Your task to perform on an android device: turn on wifi Image 0: 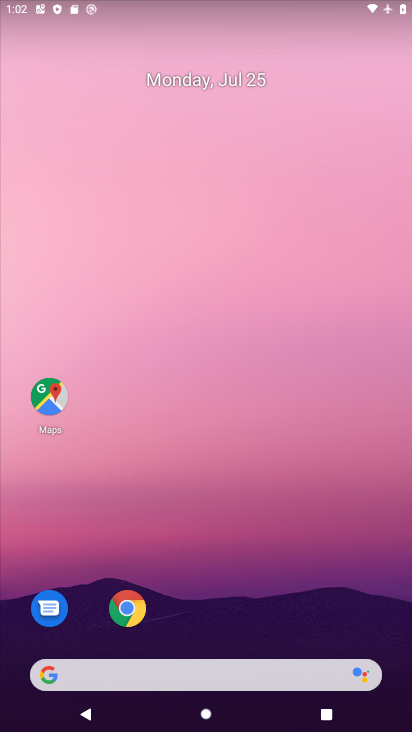
Step 0: drag from (198, 697) to (319, 218)
Your task to perform on an android device: turn on wifi Image 1: 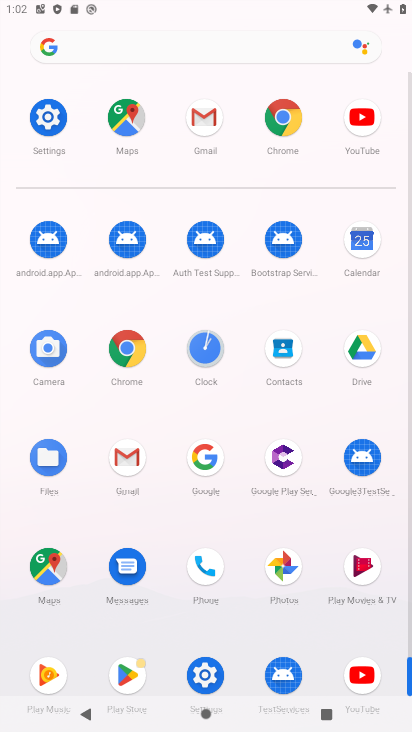
Step 1: click (40, 140)
Your task to perform on an android device: turn on wifi Image 2: 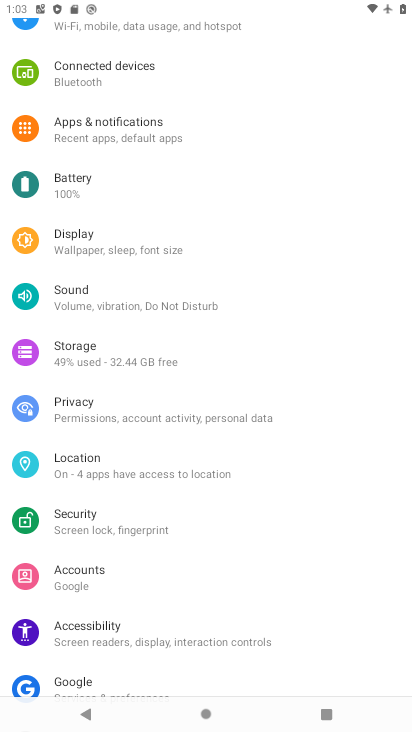
Step 2: drag from (139, 172) to (147, 583)
Your task to perform on an android device: turn on wifi Image 3: 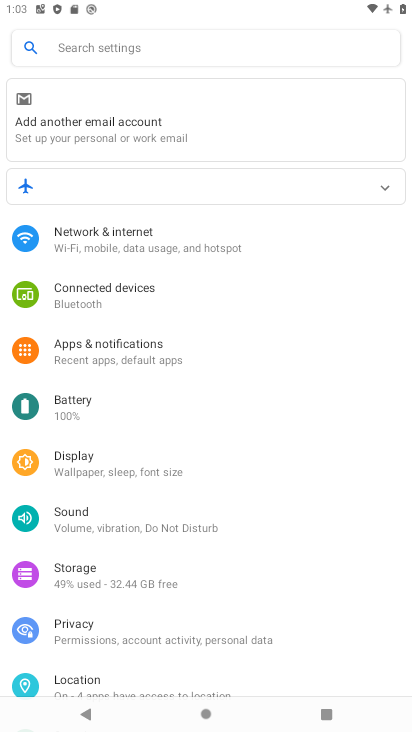
Step 3: click (173, 242)
Your task to perform on an android device: turn on wifi Image 4: 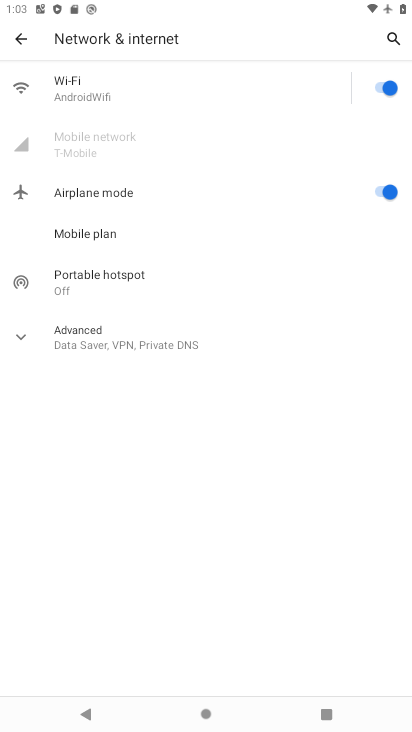
Step 4: task complete